Your task to perform on an android device: What is the capital of Brazil? Image 0: 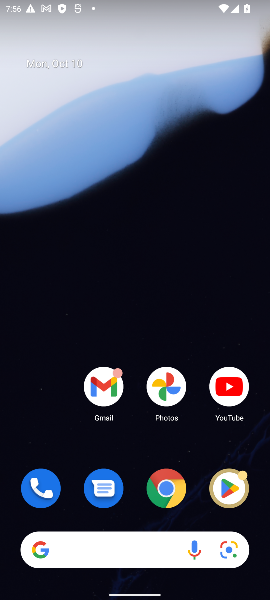
Step 0: drag from (130, 468) to (147, 314)
Your task to perform on an android device: What is the capital of Brazil? Image 1: 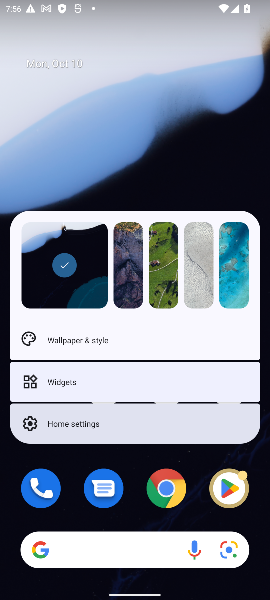
Step 1: drag from (124, 504) to (138, 228)
Your task to perform on an android device: What is the capital of Brazil? Image 2: 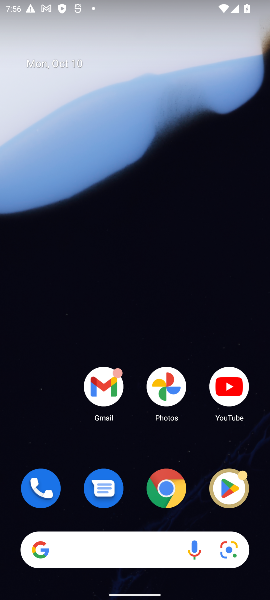
Step 2: drag from (136, 505) to (198, 148)
Your task to perform on an android device: What is the capital of Brazil? Image 3: 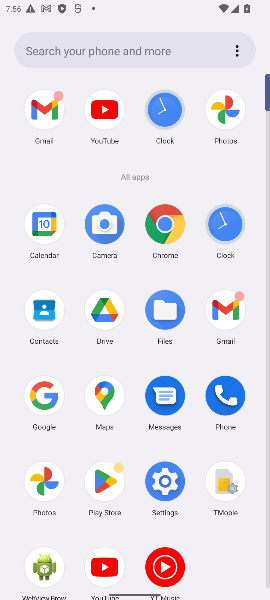
Step 3: click (162, 225)
Your task to perform on an android device: What is the capital of Brazil? Image 4: 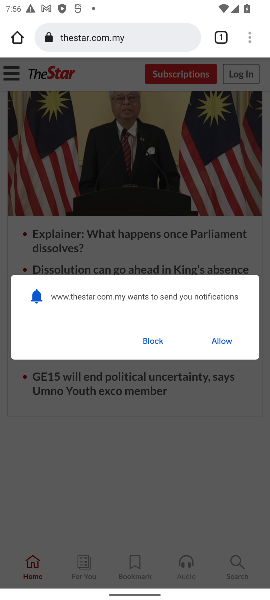
Step 4: click (132, 30)
Your task to perform on an android device: What is the capital of Brazil? Image 5: 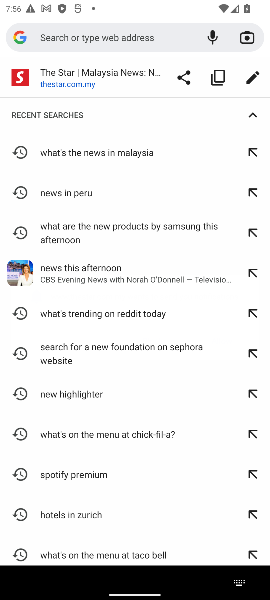
Step 5: type "What is the capital of Brazil?"
Your task to perform on an android device: What is the capital of Brazil? Image 6: 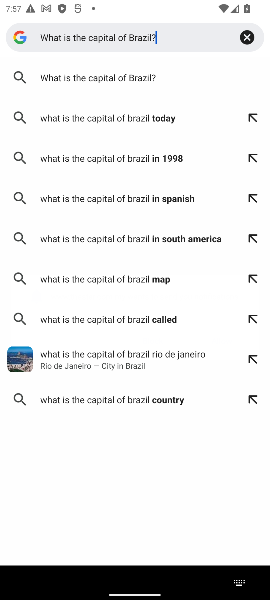
Step 6: press enter
Your task to perform on an android device: What is the capital of Brazil? Image 7: 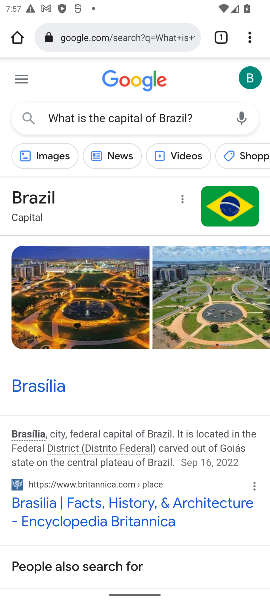
Step 7: task complete